Your task to perform on an android device: Open display settings Image 0: 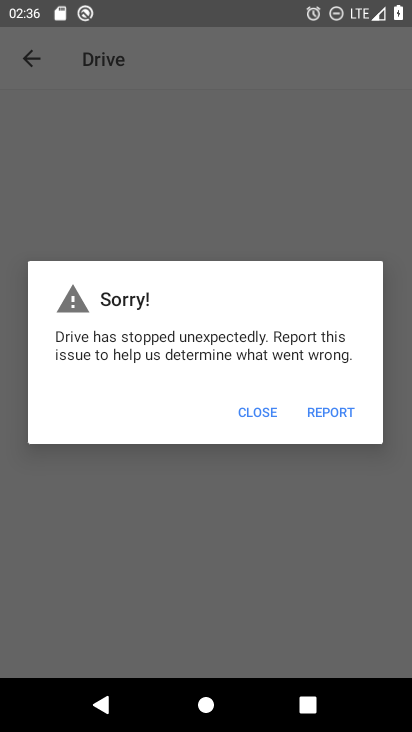
Step 0: press home button
Your task to perform on an android device: Open display settings Image 1: 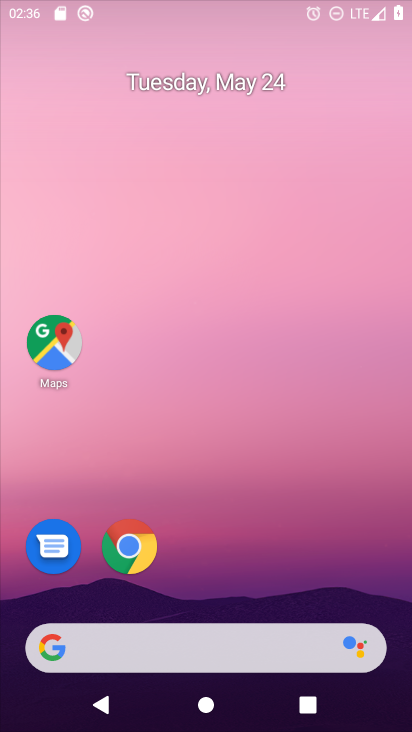
Step 1: drag from (299, 614) to (317, 51)
Your task to perform on an android device: Open display settings Image 2: 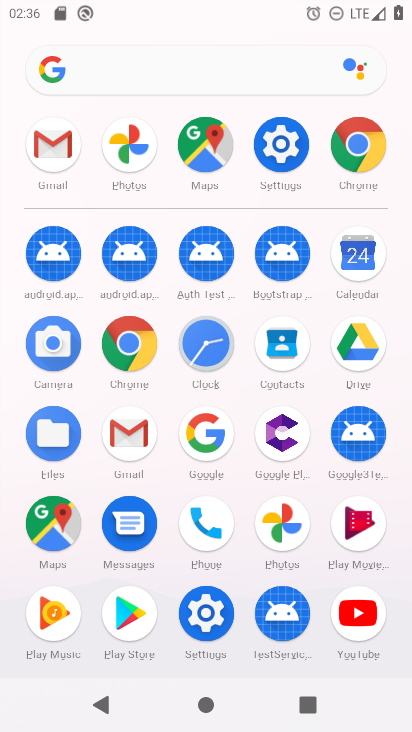
Step 2: click (281, 155)
Your task to perform on an android device: Open display settings Image 3: 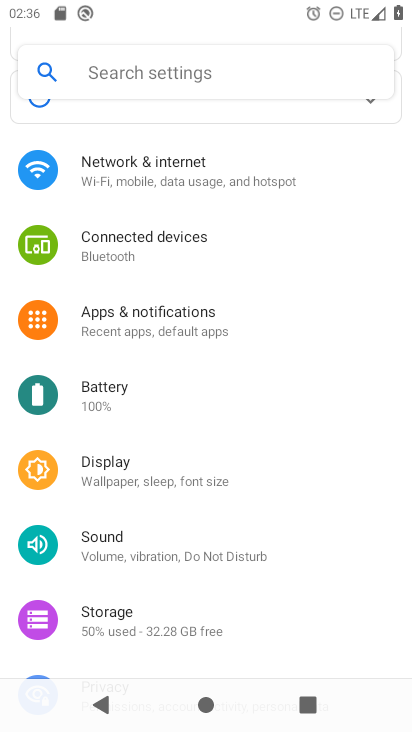
Step 3: click (164, 474)
Your task to perform on an android device: Open display settings Image 4: 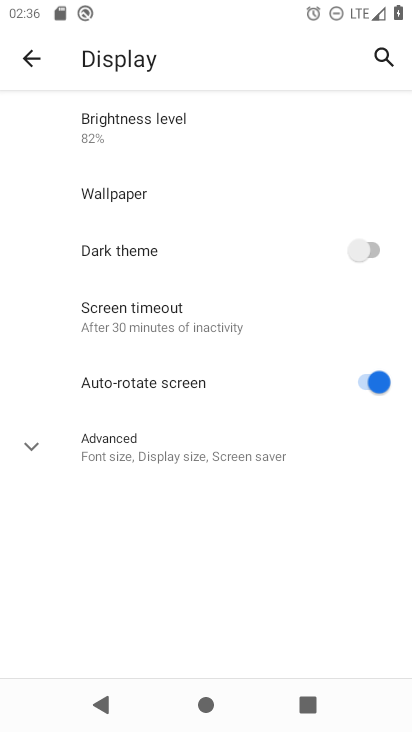
Step 4: task complete